Your task to perform on an android device: How much does a 2 bedroom apartment rent for in Philadelphia? Image 0: 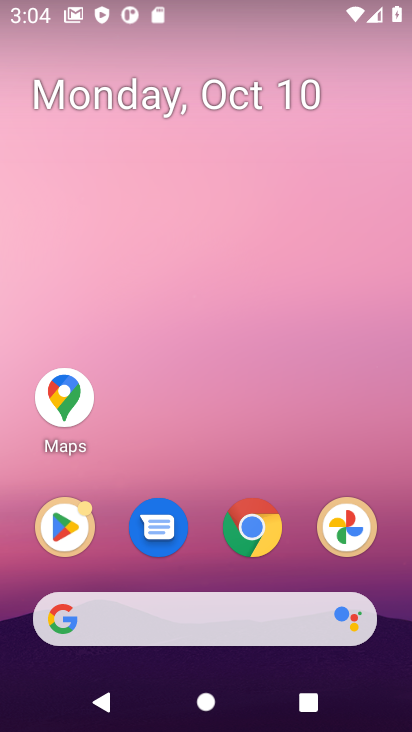
Step 0: press home button
Your task to perform on an android device: How much does a 2 bedroom apartment rent for in Philadelphia? Image 1: 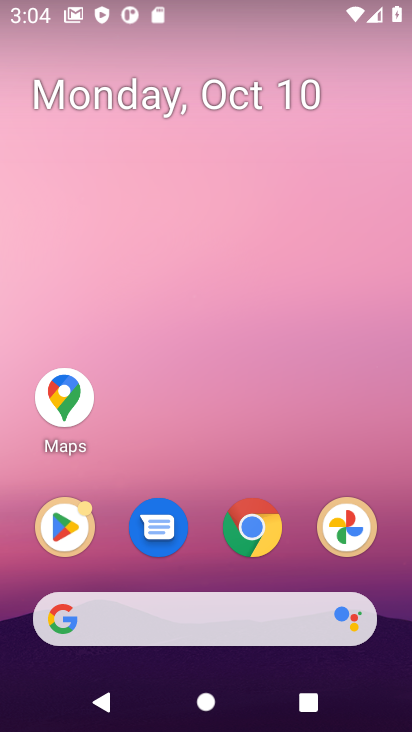
Step 1: click (240, 614)
Your task to perform on an android device: How much does a 2 bedroom apartment rent for in Philadelphia? Image 2: 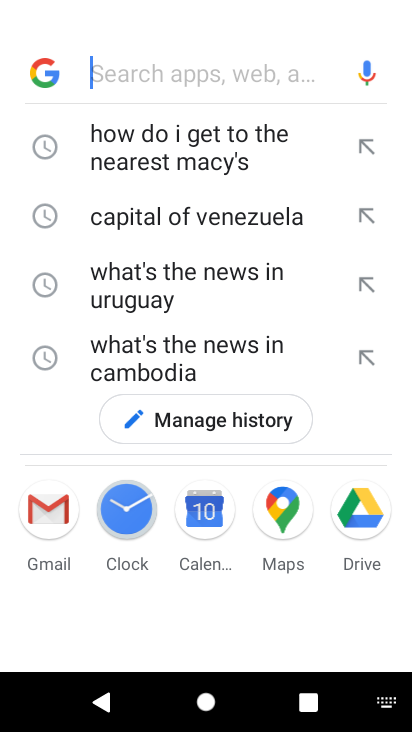
Step 2: type "2 bedroom apartment rent for in Philadelphia"
Your task to perform on an android device: How much does a 2 bedroom apartment rent for in Philadelphia? Image 3: 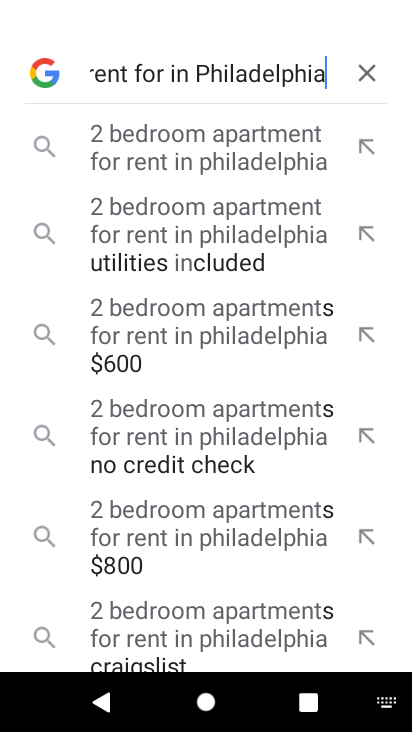
Step 3: press enter
Your task to perform on an android device: How much does a 2 bedroom apartment rent for in Philadelphia? Image 4: 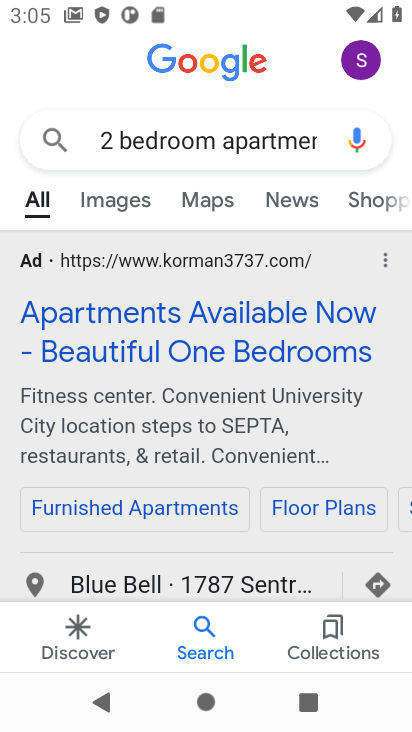
Step 4: drag from (245, 524) to (272, 360)
Your task to perform on an android device: How much does a 2 bedroom apartment rent for in Philadelphia? Image 5: 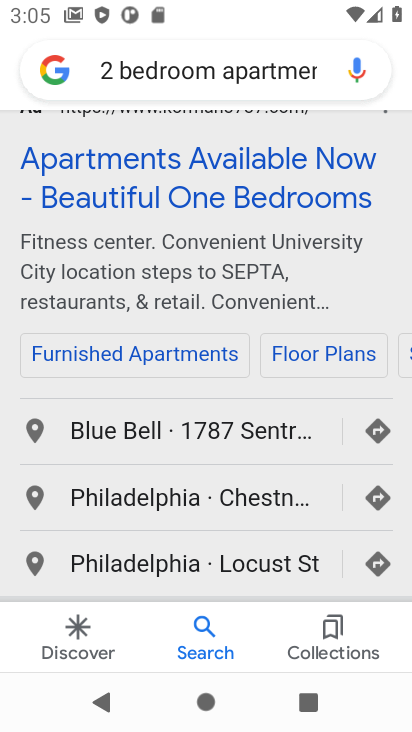
Step 5: drag from (187, 482) to (223, 266)
Your task to perform on an android device: How much does a 2 bedroom apartment rent for in Philadelphia? Image 6: 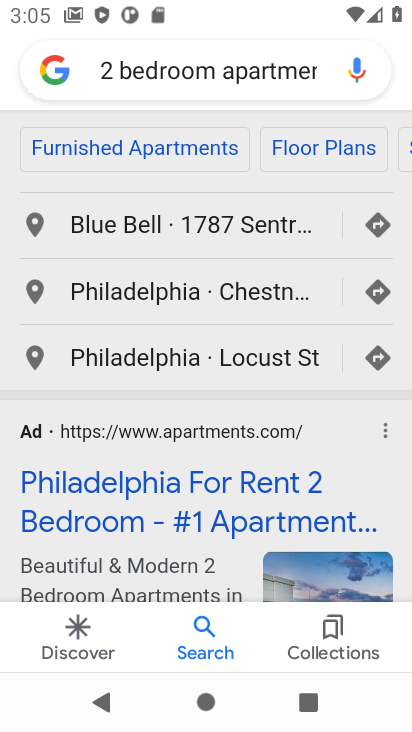
Step 6: click (193, 521)
Your task to perform on an android device: How much does a 2 bedroom apartment rent for in Philadelphia? Image 7: 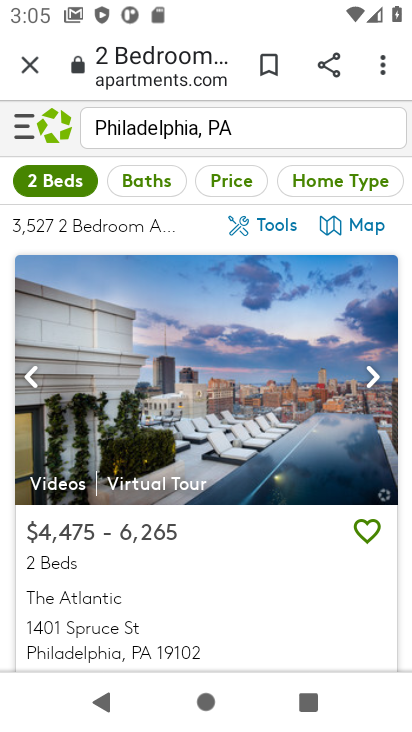
Step 7: task complete